Your task to perform on an android device: What's the weather going to be this weekend? Image 0: 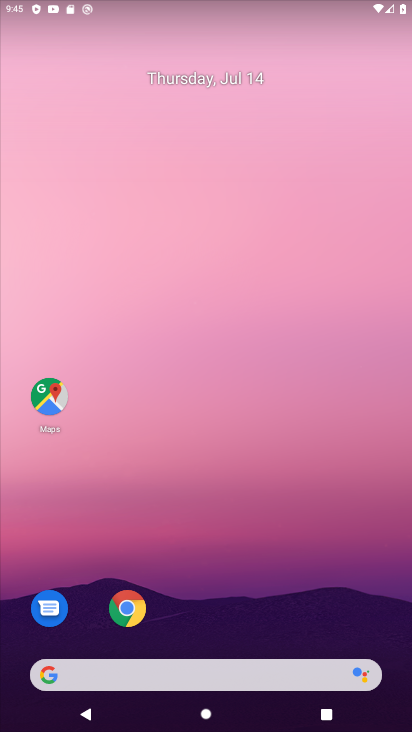
Step 0: click (201, 667)
Your task to perform on an android device: What's the weather going to be this weekend? Image 1: 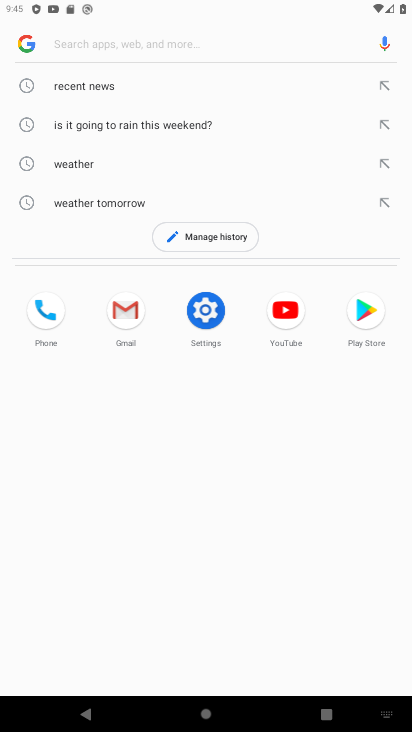
Step 1: type "What's the weather going to be this weekend"
Your task to perform on an android device: What's the weather going to be this weekend? Image 2: 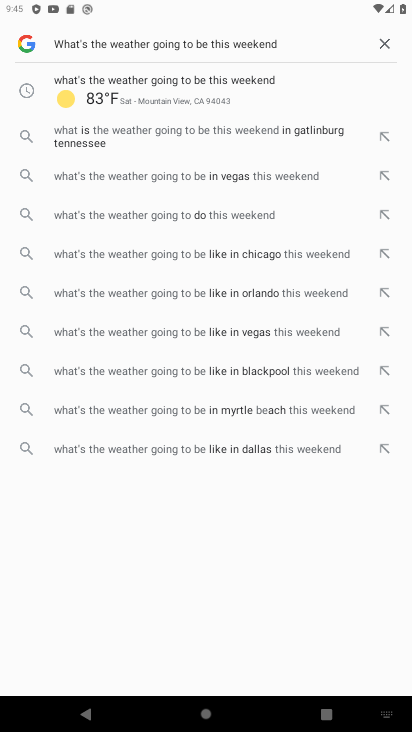
Step 2: click (191, 77)
Your task to perform on an android device: What's the weather going to be this weekend? Image 3: 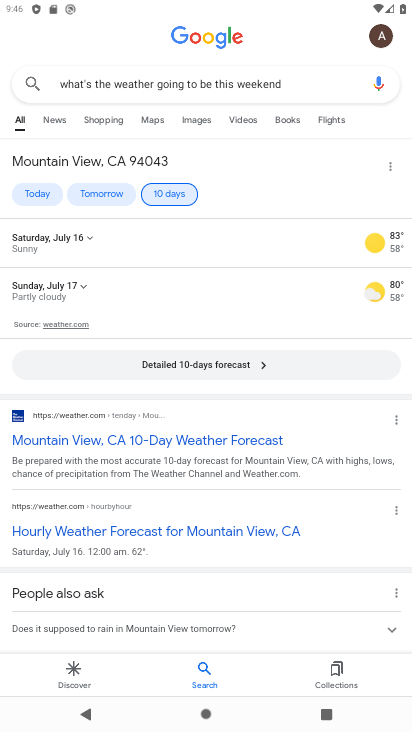
Step 3: task complete